Your task to perform on an android device: Show me popular games on the Play Store Image 0: 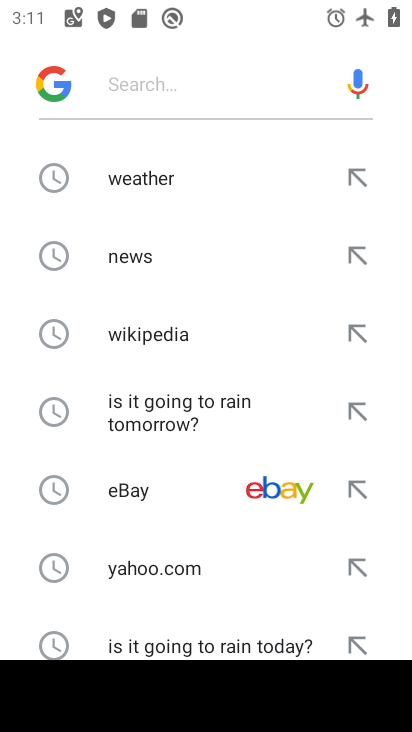
Step 0: press home button
Your task to perform on an android device: Show me popular games on the Play Store Image 1: 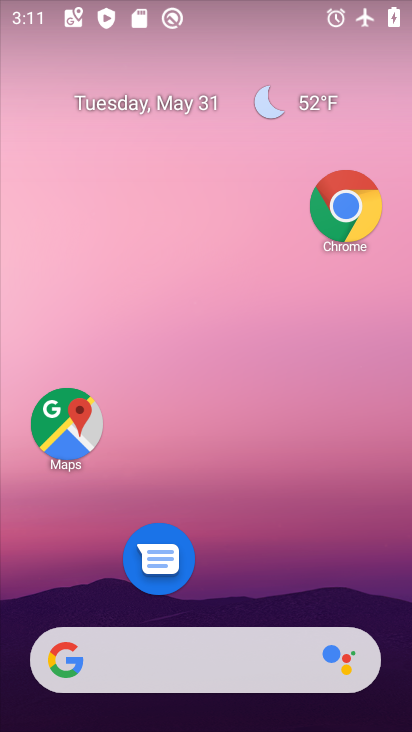
Step 1: drag from (294, 607) to (235, 248)
Your task to perform on an android device: Show me popular games on the Play Store Image 2: 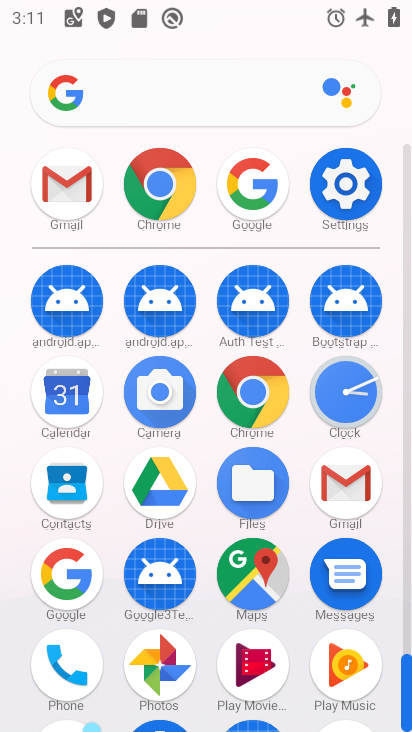
Step 2: drag from (199, 240) to (212, 63)
Your task to perform on an android device: Show me popular games on the Play Store Image 3: 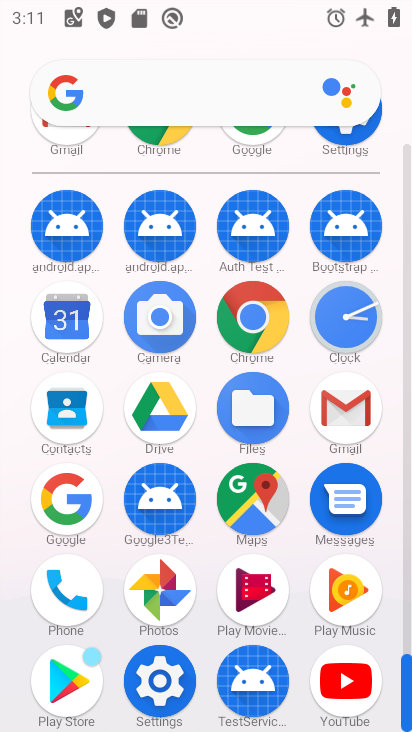
Step 3: click (70, 696)
Your task to perform on an android device: Show me popular games on the Play Store Image 4: 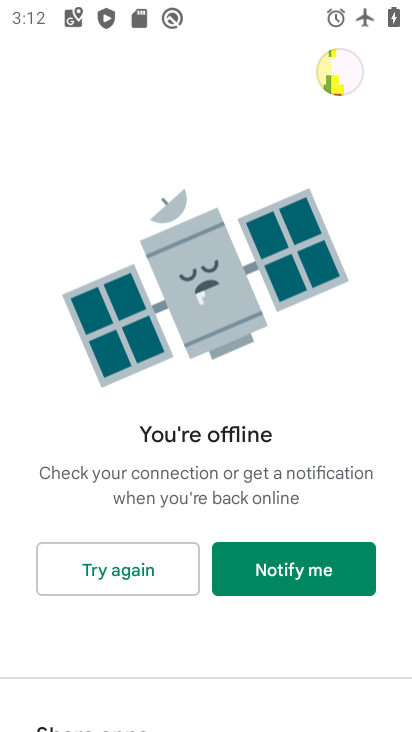
Step 4: task complete